Your task to perform on an android device: see creations saved in the google photos Image 0: 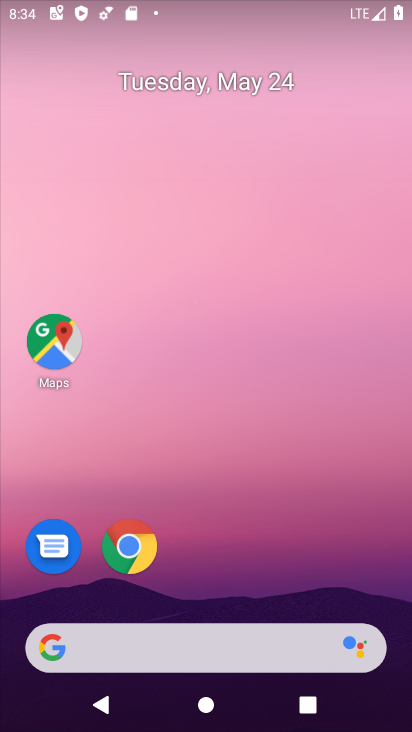
Step 0: drag from (251, 559) to (294, 12)
Your task to perform on an android device: see creations saved in the google photos Image 1: 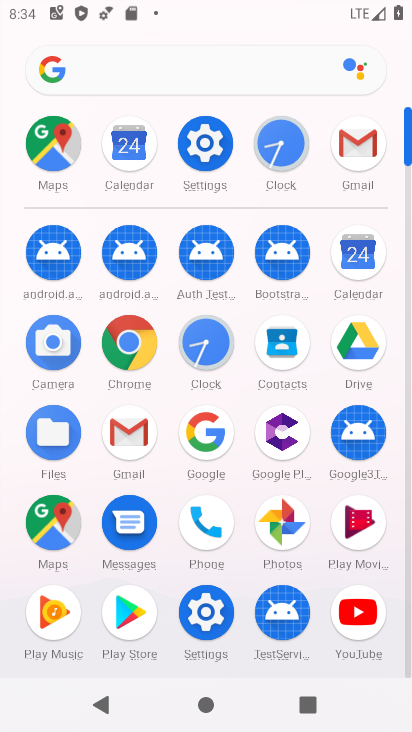
Step 1: click (272, 522)
Your task to perform on an android device: see creations saved in the google photos Image 2: 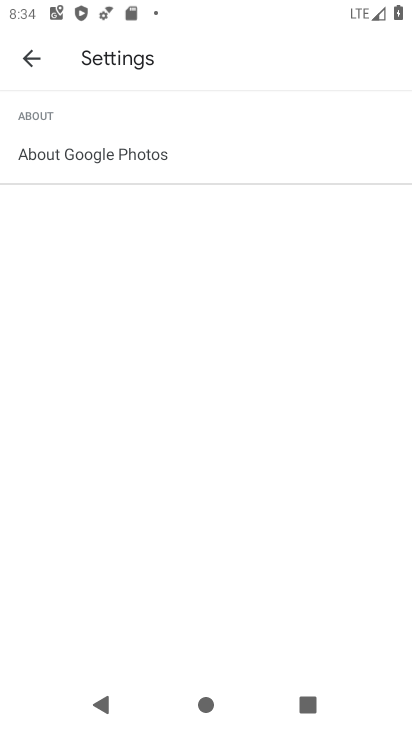
Step 2: click (34, 56)
Your task to perform on an android device: see creations saved in the google photos Image 3: 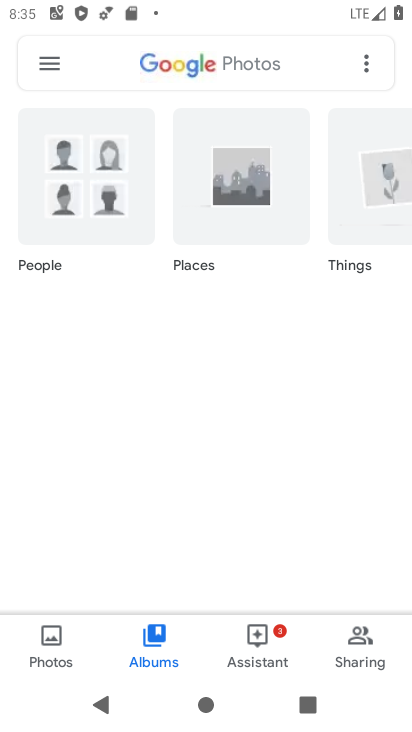
Step 3: click (221, 61)
Your task to perform on an android device: see creations saved in the google photos Image 4: 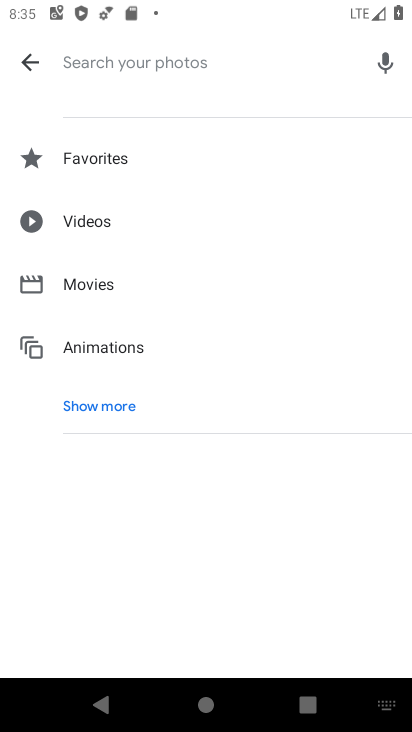
Step 4: click (117, 393)
Your task to perform on an android device: see creations saved in the google photos Image 5: 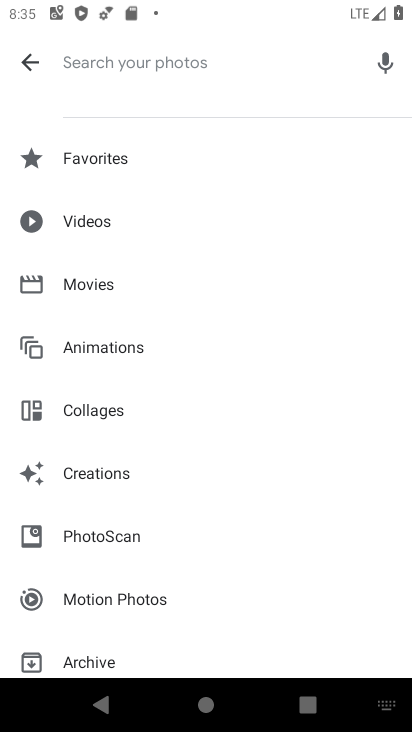
Step 5: click (94, 457)
Your task to perform on an android device: see creations saved in the google photos Image 6: 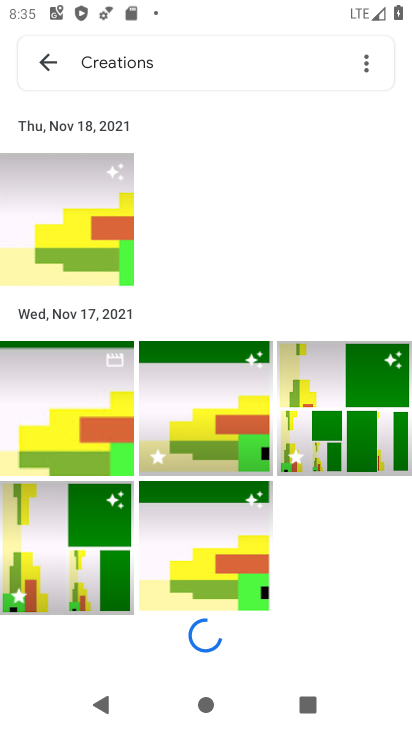
Step 6: task complete